Your task to perform on an android device: see tabs open on other devices in the chrome app Image 0: 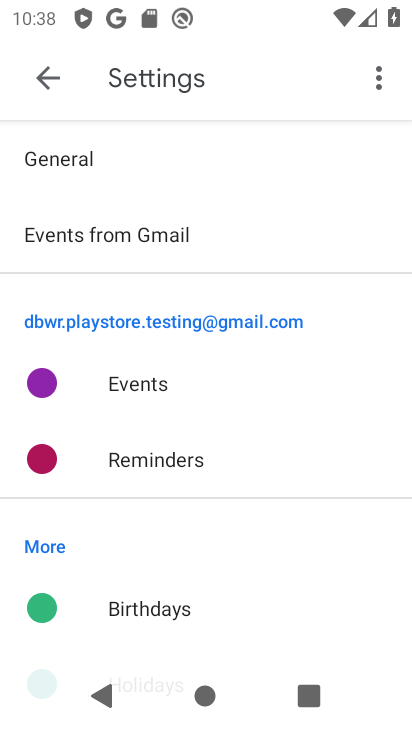
Step 0: press home button
Your task to perform on an android device: see tabs open on other devices in the chrome app Image 1: 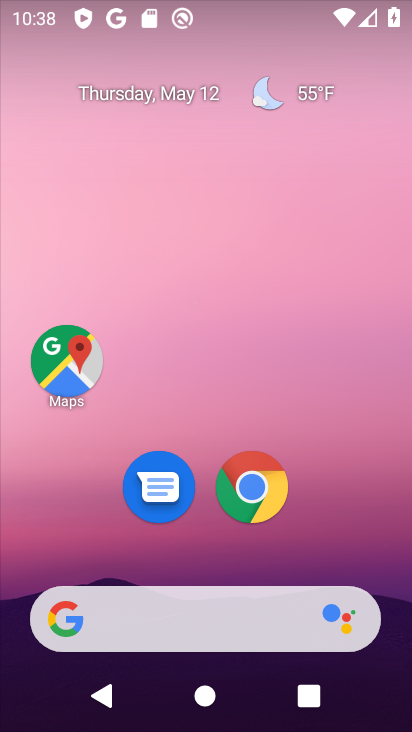
Step 1: click (262, 487)
Your task to perform on an android device: see tabs open on other devices in the chrome app Image 2: 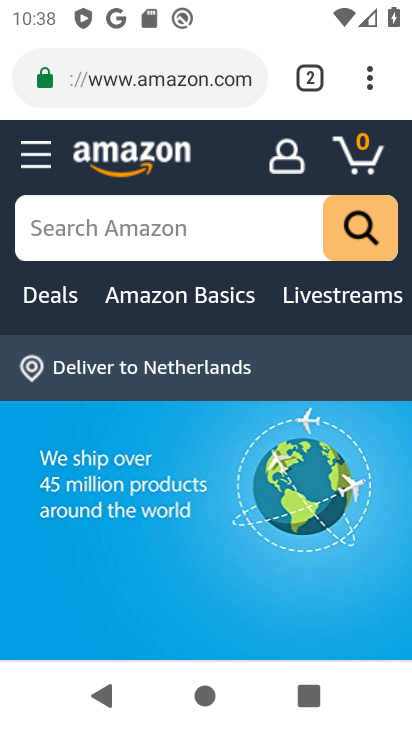
Step 2: drag from (368, 82) to (79, 372)
Your task to perform on an android device: see tabs open on other devices in the chrome app Image 3: 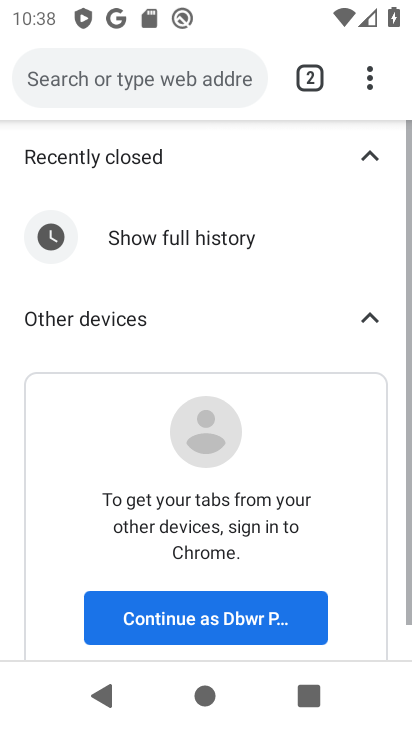
Step 3: click (218, 619)
Your task to perform on an android device: see tabs open on other devices in the chrome app Image 4: 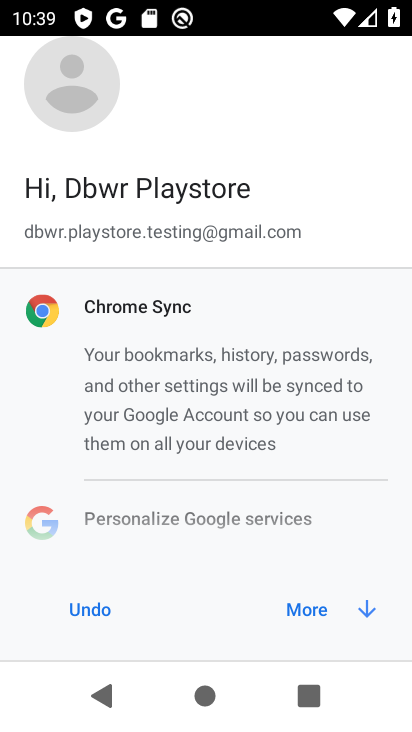
Step 4: click (292, 599)
Your task to perform on an android device: see tabs open on other devices in the chrome app Image 5: 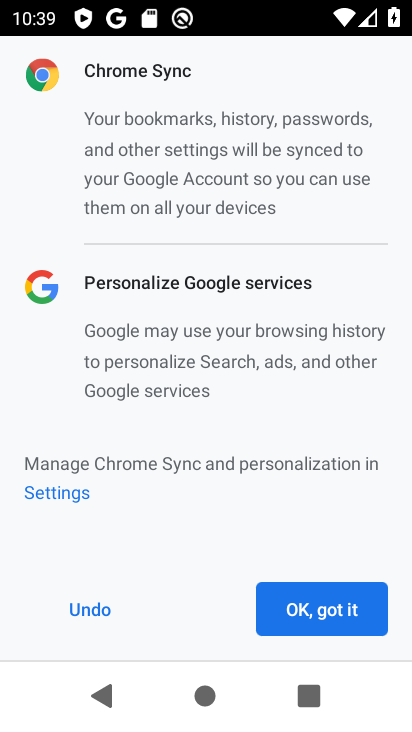
Step 5: click (292, 599)
Your task to perform on an android device: see tabs open on other devices in the chrome app Image 6: 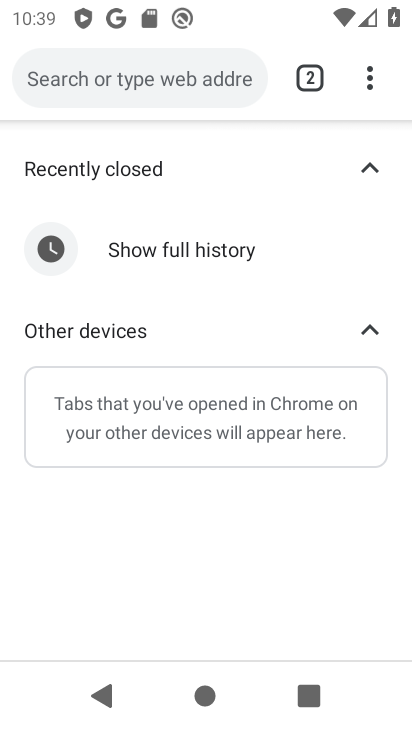
Step 6: task complete